Your task to perform on an android device: turn off improve location accuracy Image 0: 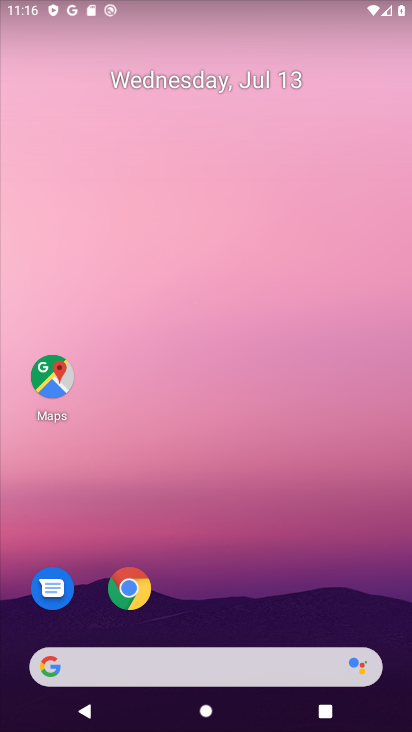
Step 0: drag from (209, 600) to (204, 133)
Your task to perform on an android device: turn off improve location accuracy Image 1: 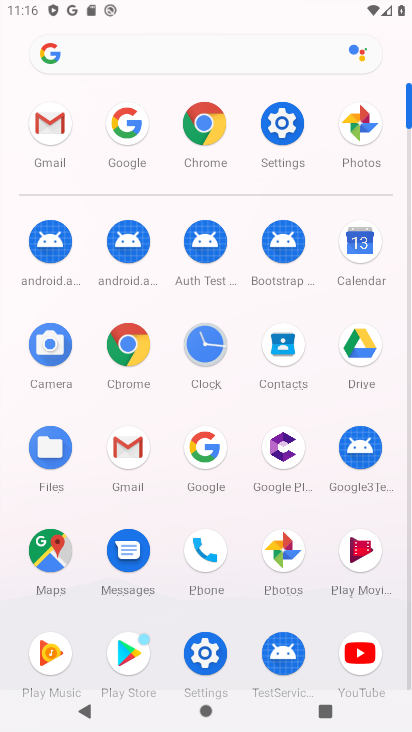
Step 1: click (211, 651)
Your task to perform on an android device: turn off improve location accuracy Image 2: 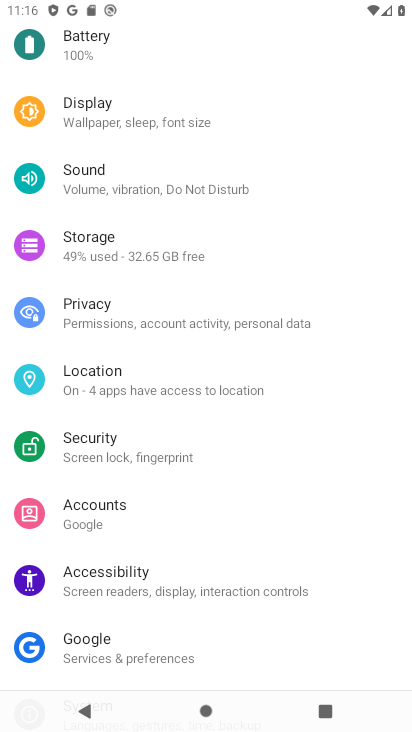
Step 2: click (142, 375)
Your task to perform on an android device: turn off improve location accuracy Image 3: 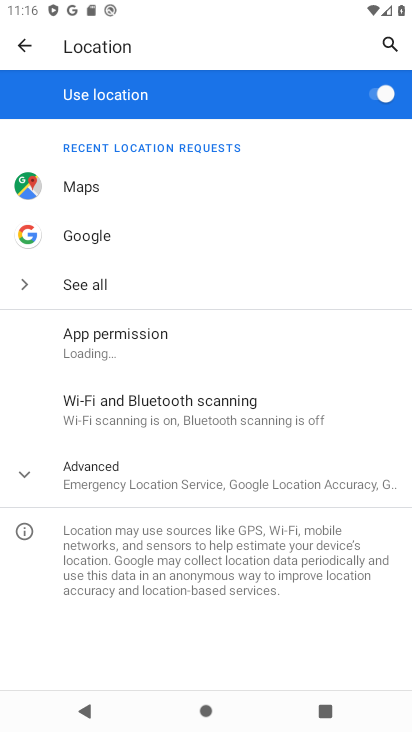
Step 3: click (133, 475)
Your task to perform on an android device: turn off improve location accuracy Image 4: 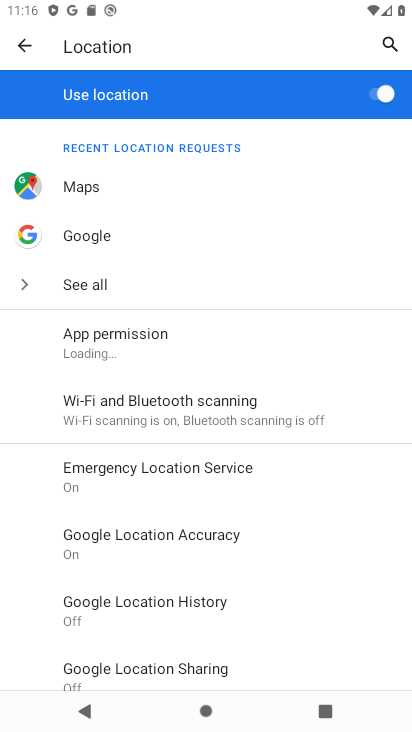
Step 4: click (204, 549)
Your task to perform on an android device: turn off improve location accuracy Image 5: 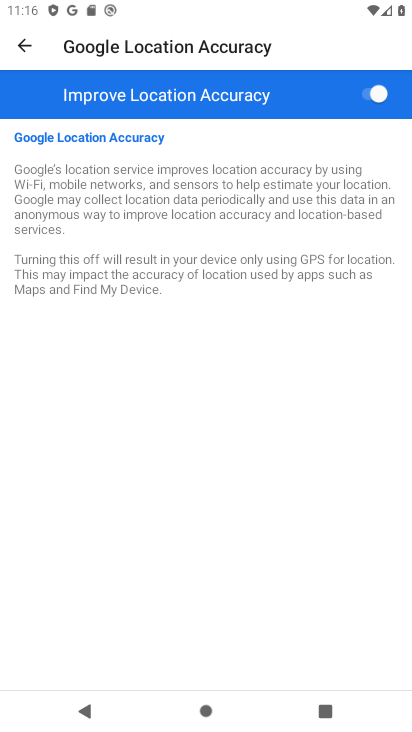
Step 5: click (359, 92)
Your task to perform on an android device: turn off improve location accuracy Image 6: 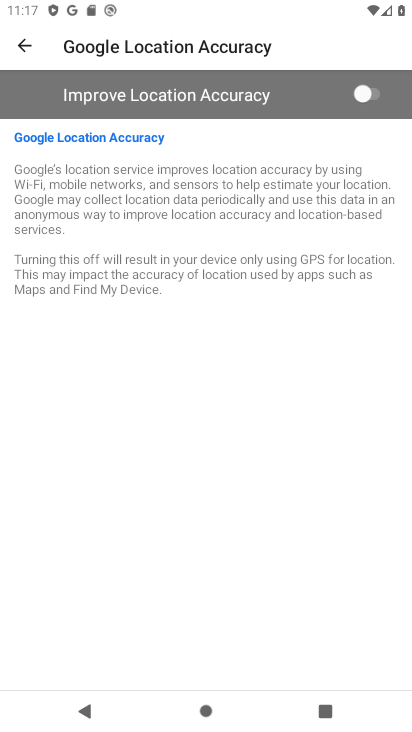
Step 6: task complete